Your task to perform on an android device: set an alarm Image 0: 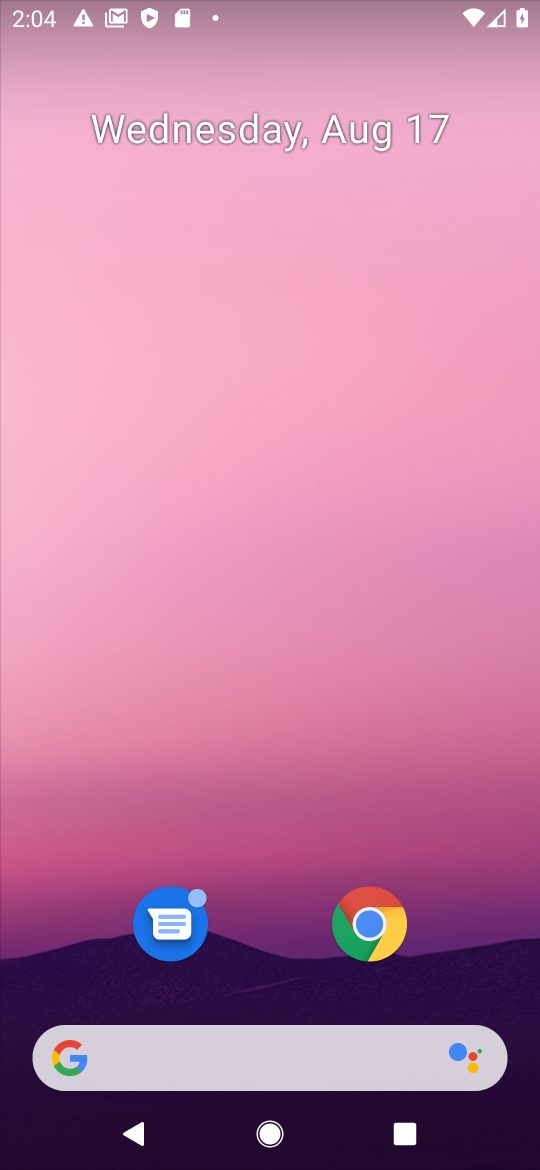
Step 0: drag from (278, 1030) to (160, 131)
Your task to perform on an android device: set an alarm Image 1: 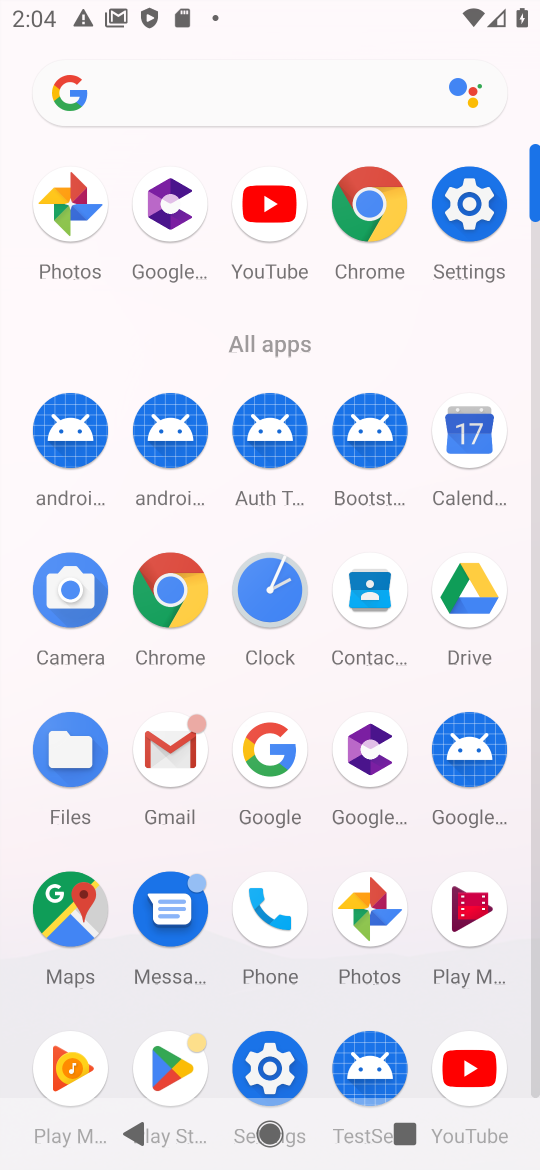
Step 1: click (271, 607)
Your task to perform on an android device: set an alarm Image 2: 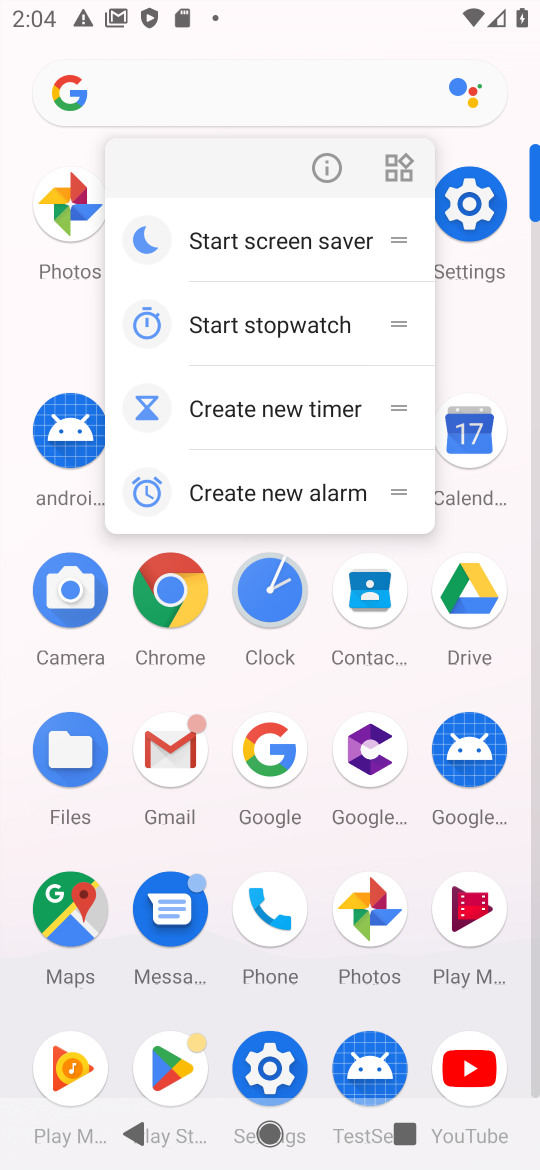
Step 2: click (308, 604)
Your task to perform on an android device: set an alarm Image 3: 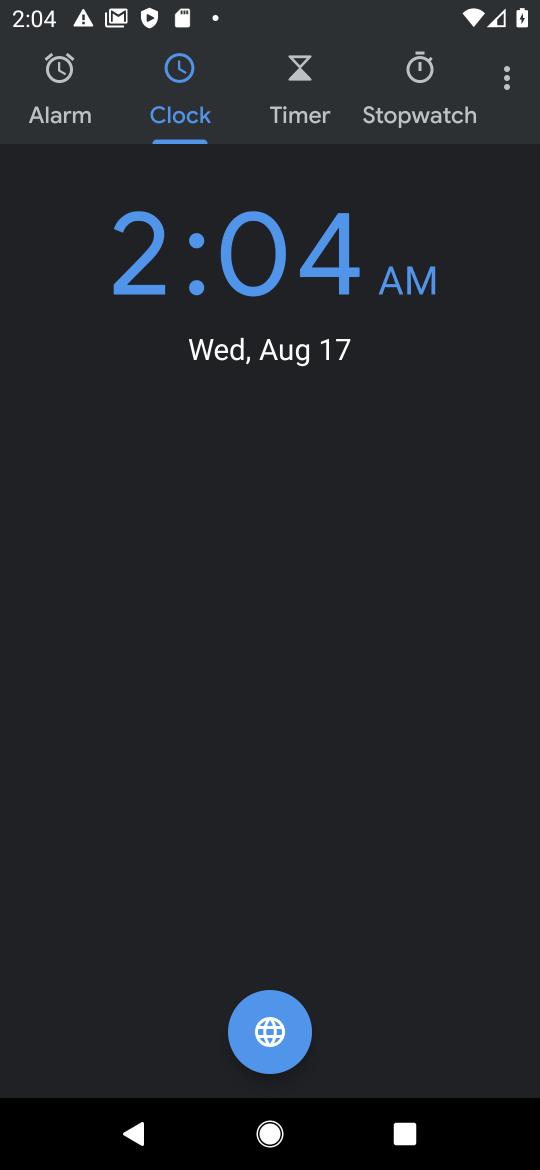
Step 3: click (60, 79)
Your task to perform on an android device: set an alarm Image 4: 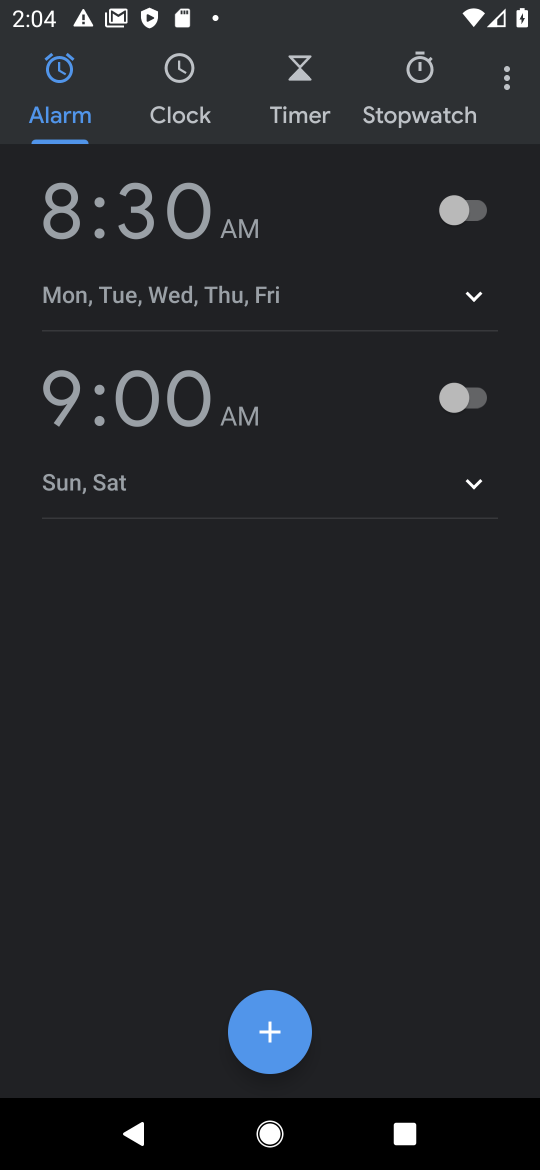
Step 4: click (278, 1028)
Your task to perform on an android device: set an alarm Image 5: 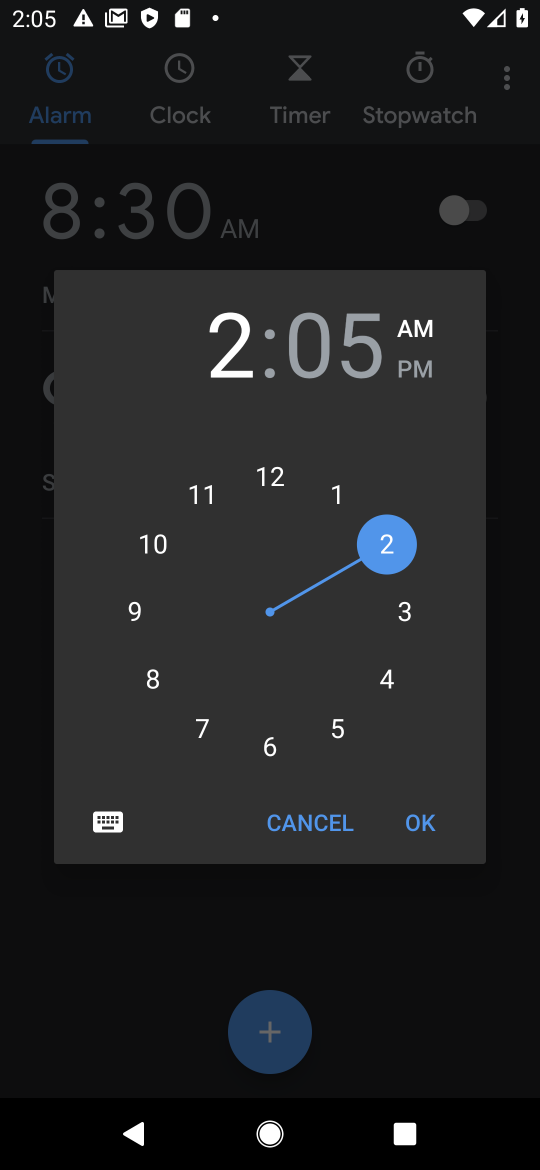
Step 5: click (413, 807)
Your task to perform on an android device: set an alarm Image 6: 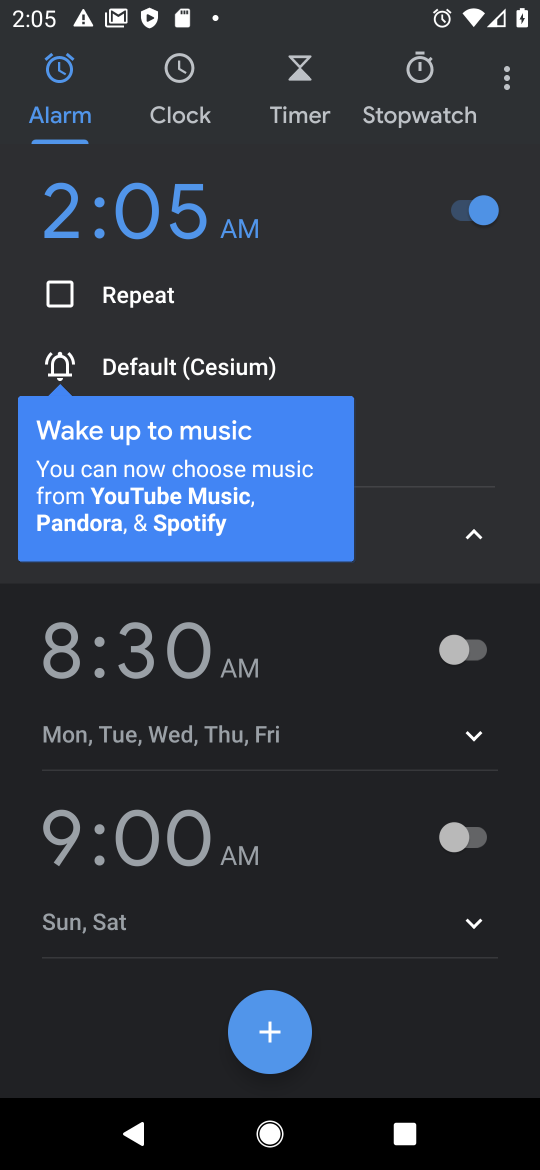
Step 6: task complete